Your task to perform on an android device: check battery use Image 0: 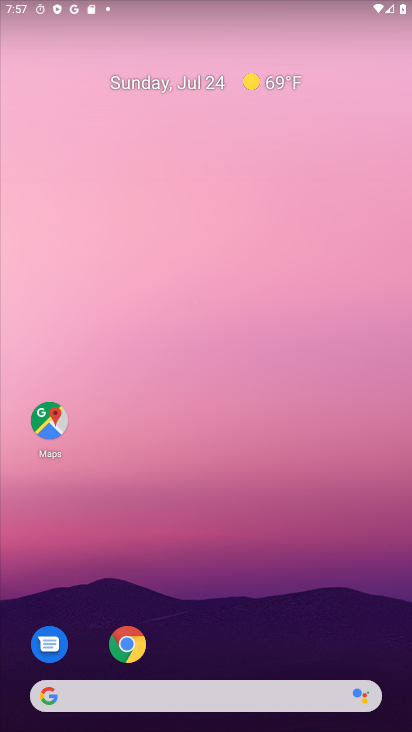
Step 0: drag from (271, 687) to (279, 214)
Your task to perform on an android device: check battery use Image 1: 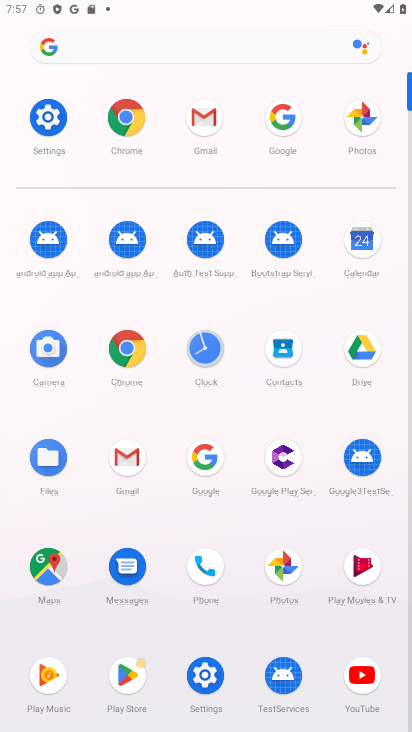
Step 1: click (50, 115)
Your task to perform on an android device: check battery use Image 2: 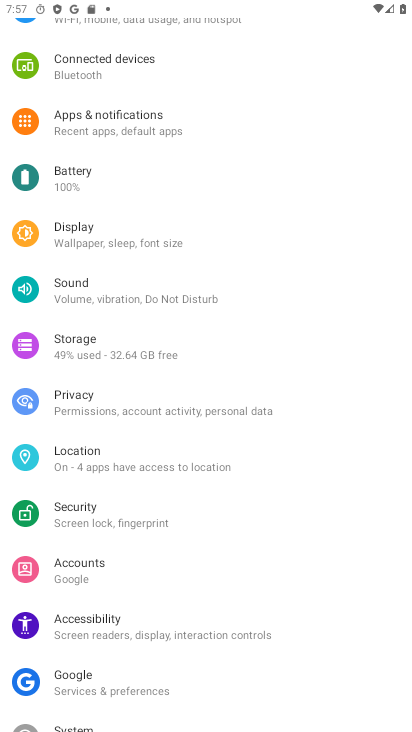
Step 2: click (86, 167)
Your task to perform on an android device: check battery use Image 3: 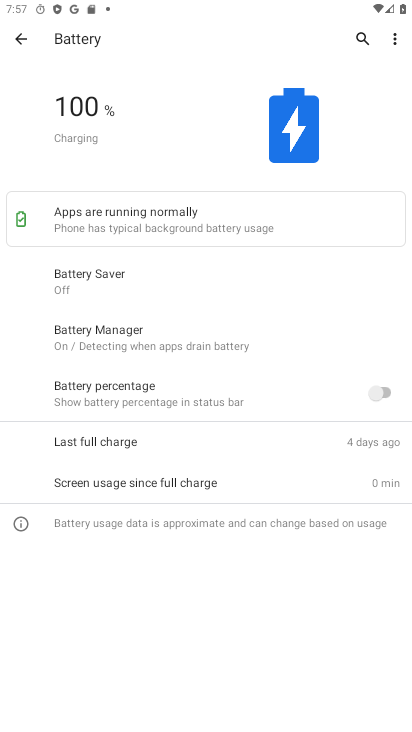
Step 3: click (397, 29)
Your task to perform on an android device: check battery use Image 4: 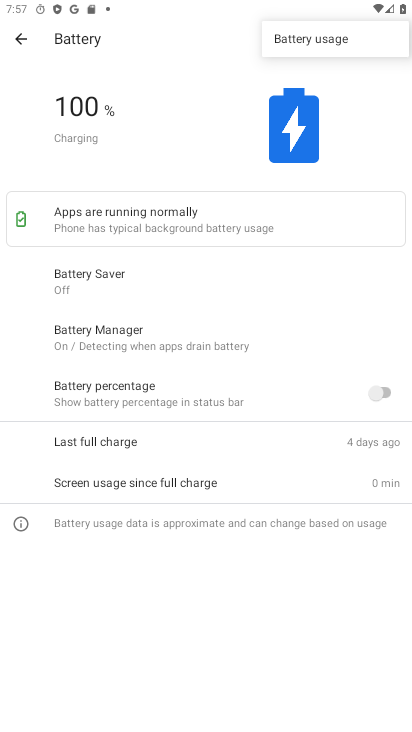
Step 4: click (323, 30)
Your task to perform on an android device: check battery use Image 5: 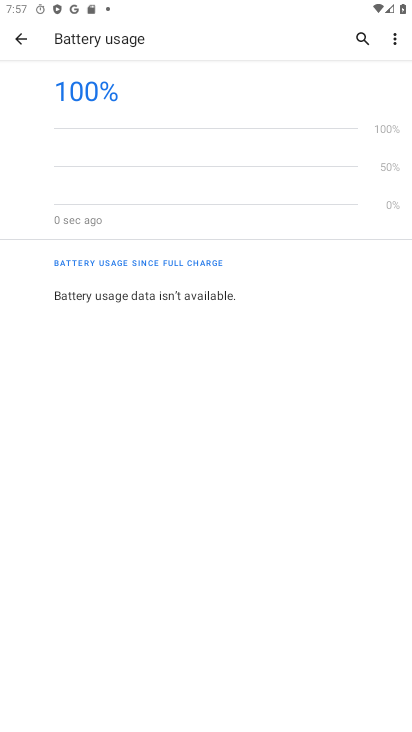
Step 5: task complete